Your task to perform on an android device: Go to eBay Image 0: 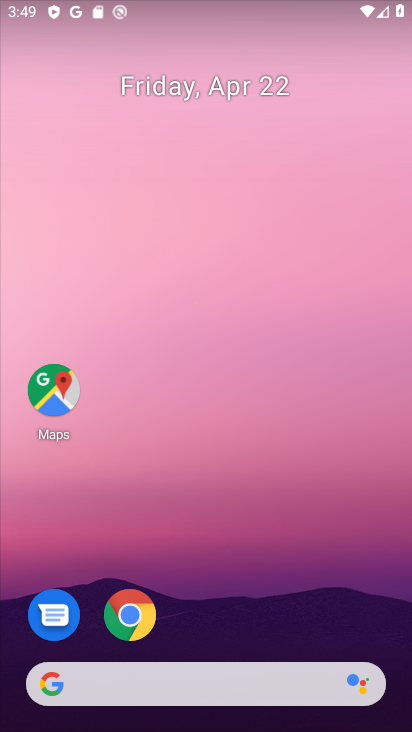
Step 0: click (140, 628)
Your task to perform on an android device: Go to eBay Image 1: 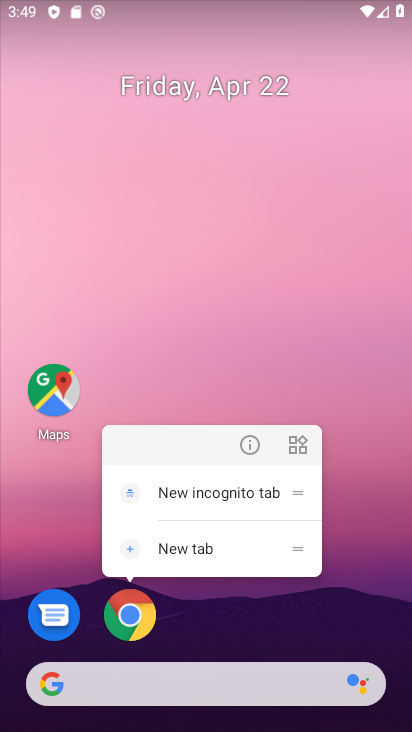
Step 1: click (141, 618)
Your task to perform on an android device: Go to eBay Image 2: 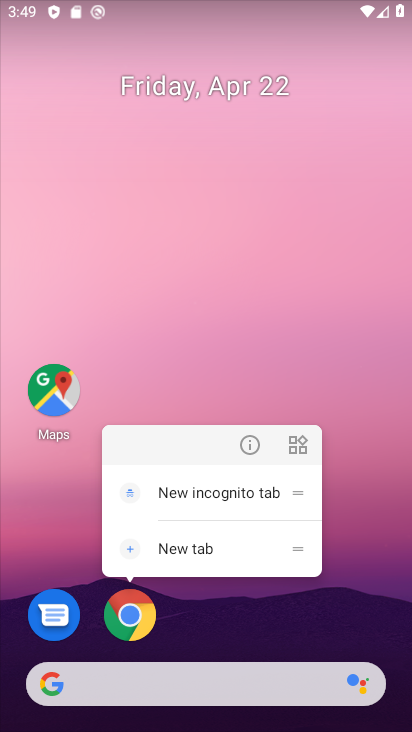
Step 2: click (141, 618)
Your task to perform on an android device: Go to eBay Image 3: 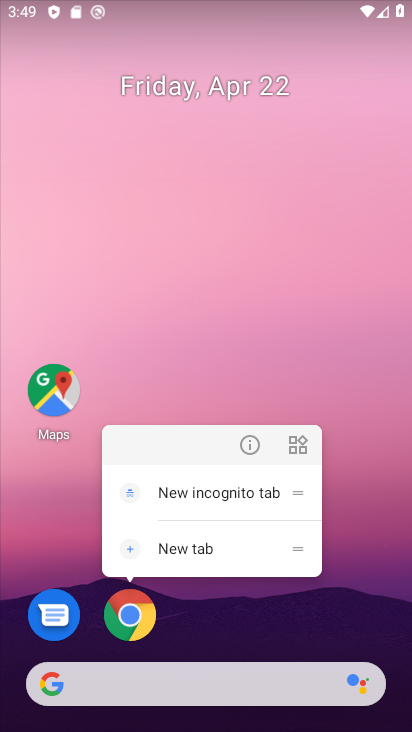
Step 3: click (140, 621)
Your task to perform on an android device: Go to eBay Image 4: 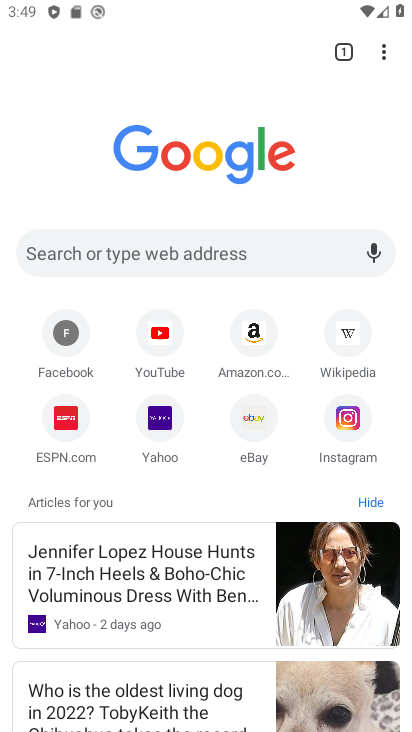
Step 4: click (165, 252)
Your task to perform on an android device: Go to eBay Image 5: 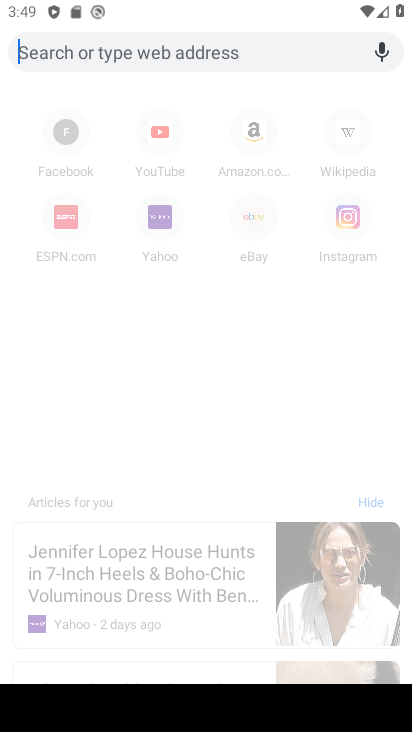
Step 5: type "ebay"
Your task to perform on an android device: Go to eBay Image 6: 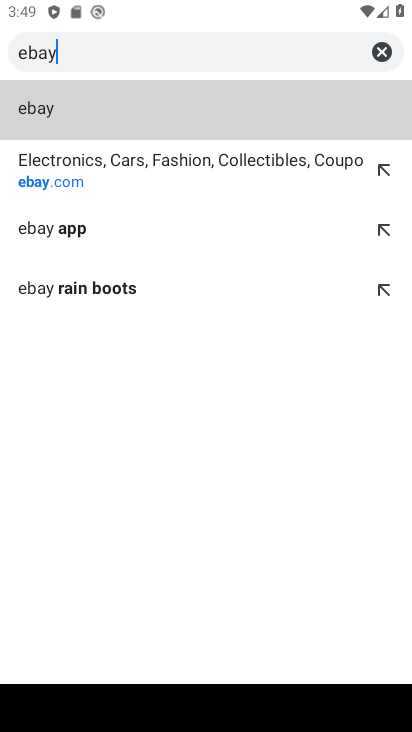
Step 6: click (52, 173)
Your task to perform on an android device: Go to eBay Image 7: 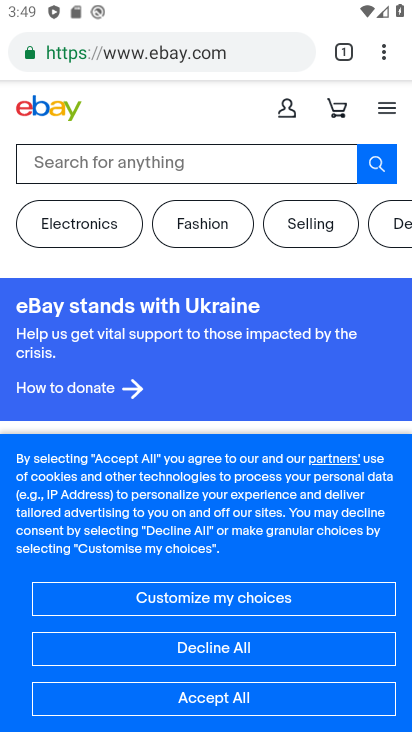
Step 7: task complete